Your task to perform on an android device: uninstall "Messages" Image 0: 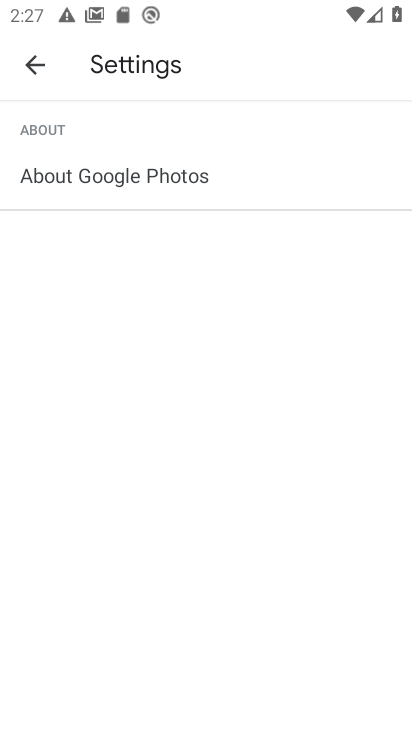
Step 0: press back button
Your task to perform on an android device: uninstall "Messages" Image 1: 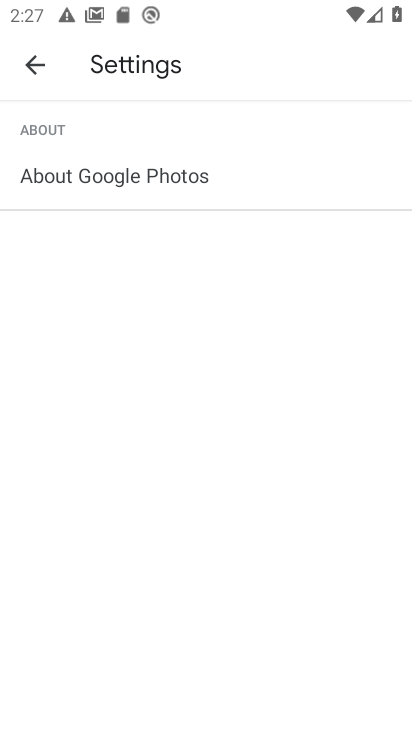
Step 1: press back button
Your task to perform on an android device: uninstall "Messages" Image 2: 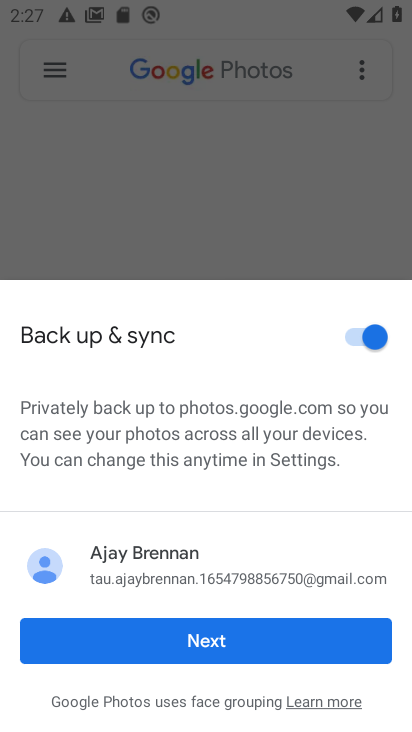
Step 2: press home button
Your task to perform on an android device: uninstall "Messages" Image 3: 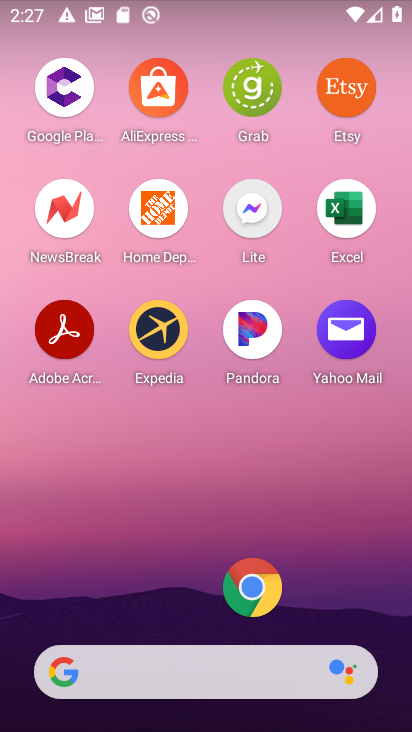
Step 3: drag from (165, 594) to (216, 199)
Your task to perform on an android device: uninstall "Messages" Image 4: 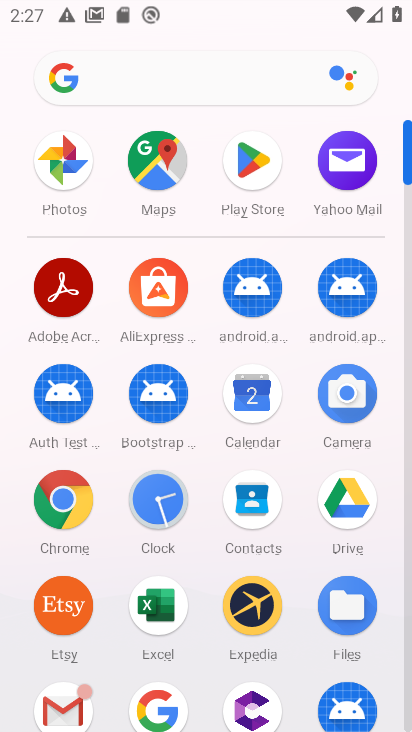
Step 4: click (248, 161)
Your task to perform on an android device: uninstall "Messages" Image 5: 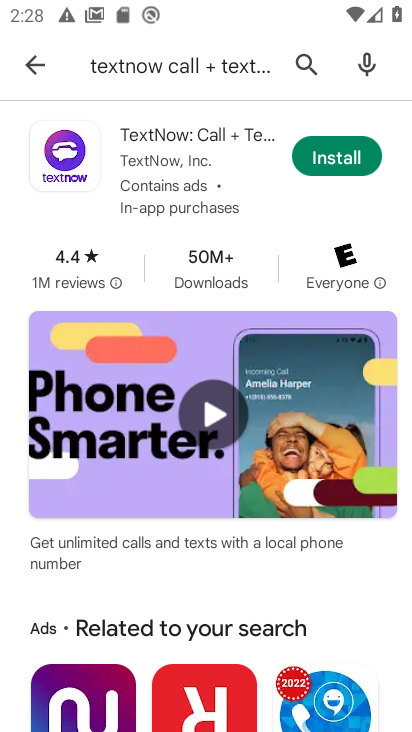
Step 5: click (307, 65)
Your task to perform on an android device: uninstall "Messages" Image 6: 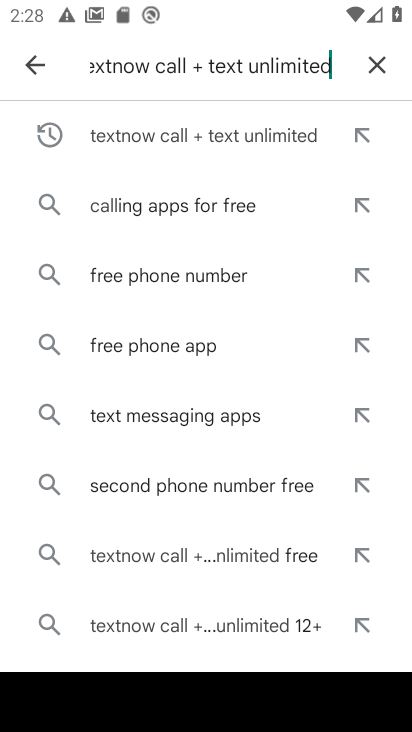
Step 6: click (387, 52)
Your task to perform on an android device: uninstall "Messages" Image 7: 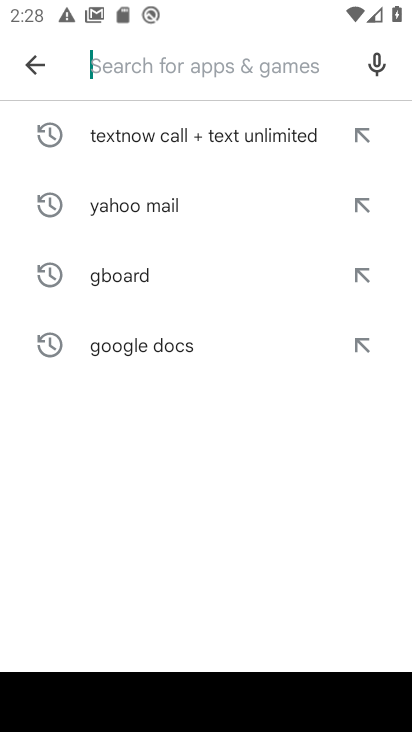
Step 7: type "Messages"
Your task to perform on an android device: uninstall "Messages" Image 8: 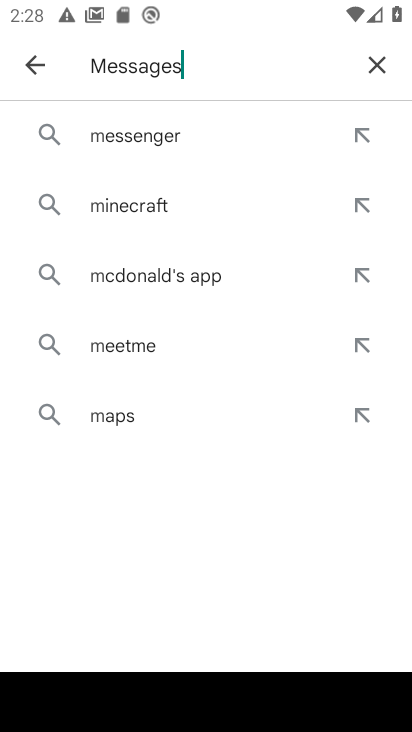
Step 8: type ""
Your task to perform on an android device: uninstall "Messages" Image 9: 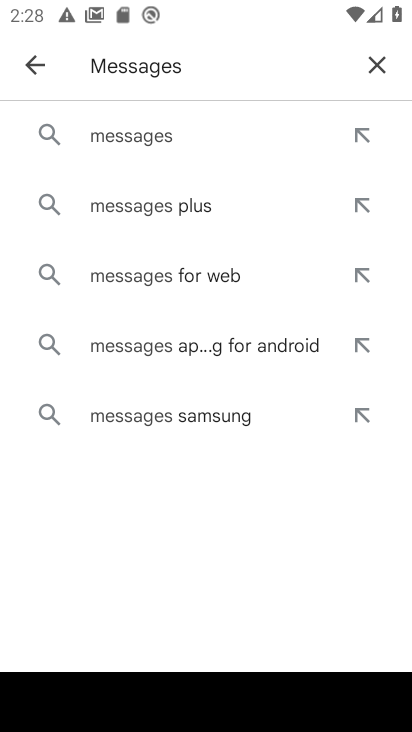
Step 9: click (172, 125)
Your task to perform on an android device: uninstall "Messages" Image 10: 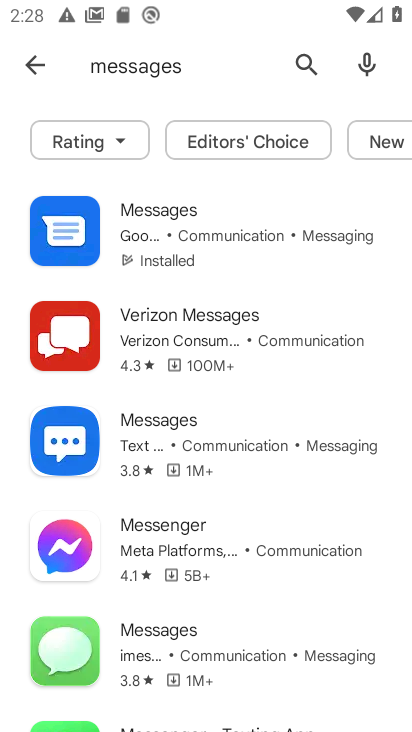
Step 10: click (161, 215)
Your task to perform on an android device: uninstall "Messages" Image 11: 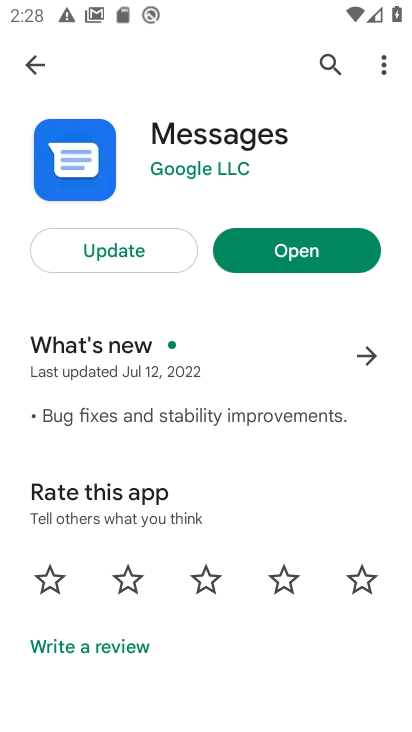
Step 11: click (167, 259)
Your task to perform on an android device: uninstall "Messages" Image 12: 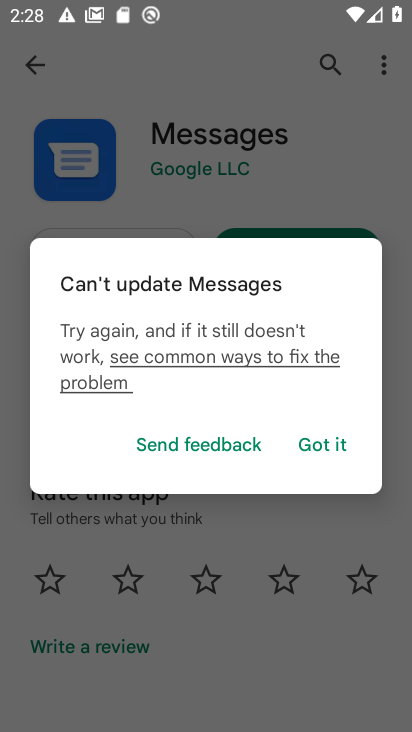
Step 12: click (316, 453)
Your task to perform on an android device: uninstall "Messages" Image 13: 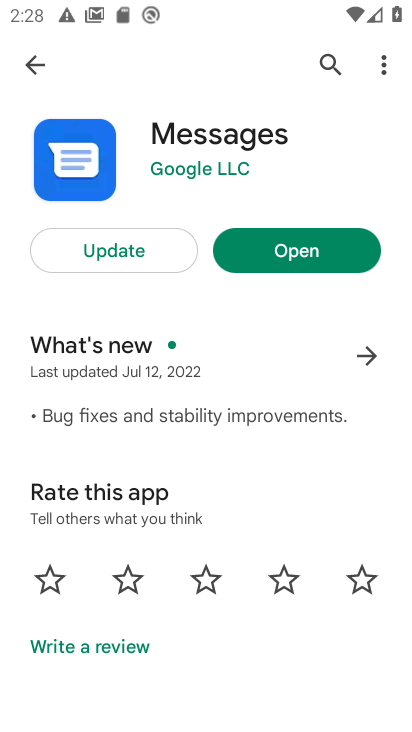
Step 13: click (152, 249)
Your task to perform on an android device: uninstall "Messages" Image 14: 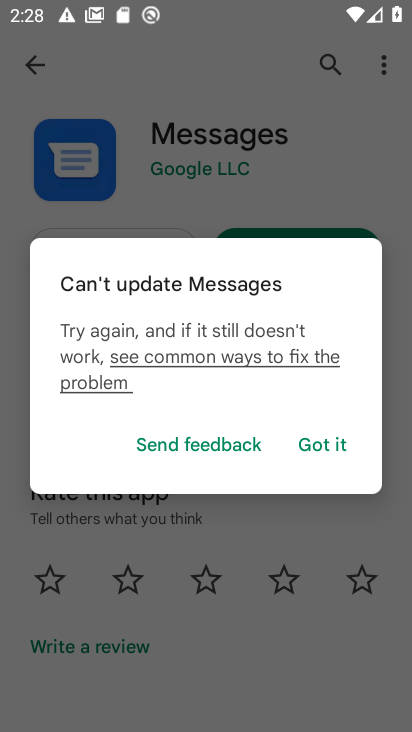
Step 14: click (335, 450)
Your task to perform on an android device: uninstall "Messages" Image 15: 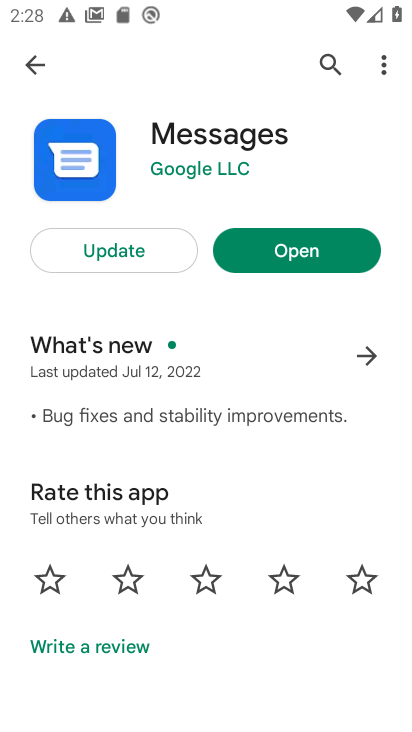
Step 15: click (91, 256)
Your task to perform on an android device: uninstall "Messages" Image 16: 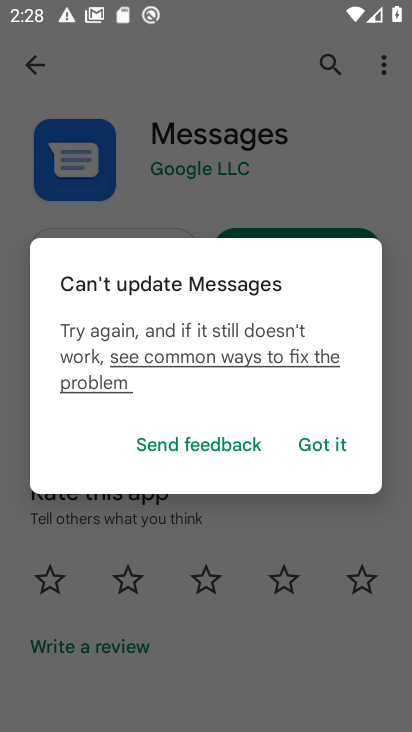
Step 16: click (330, 432)
Your task to perform on an android device: uninstall "Messages" Image 17: 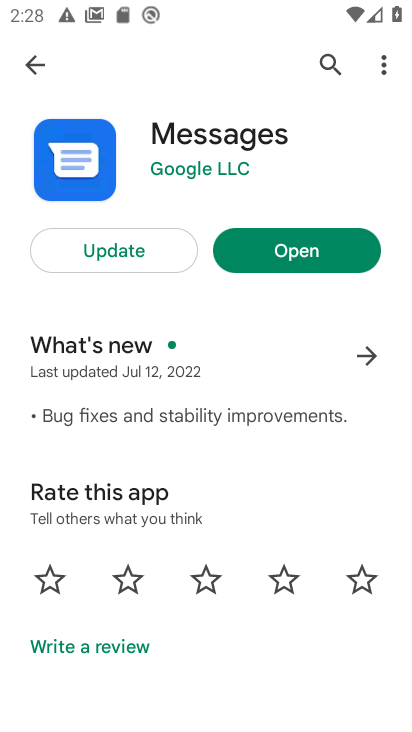
Step 17: task complete